Your task to perform on an android device: Open the map Image 0: 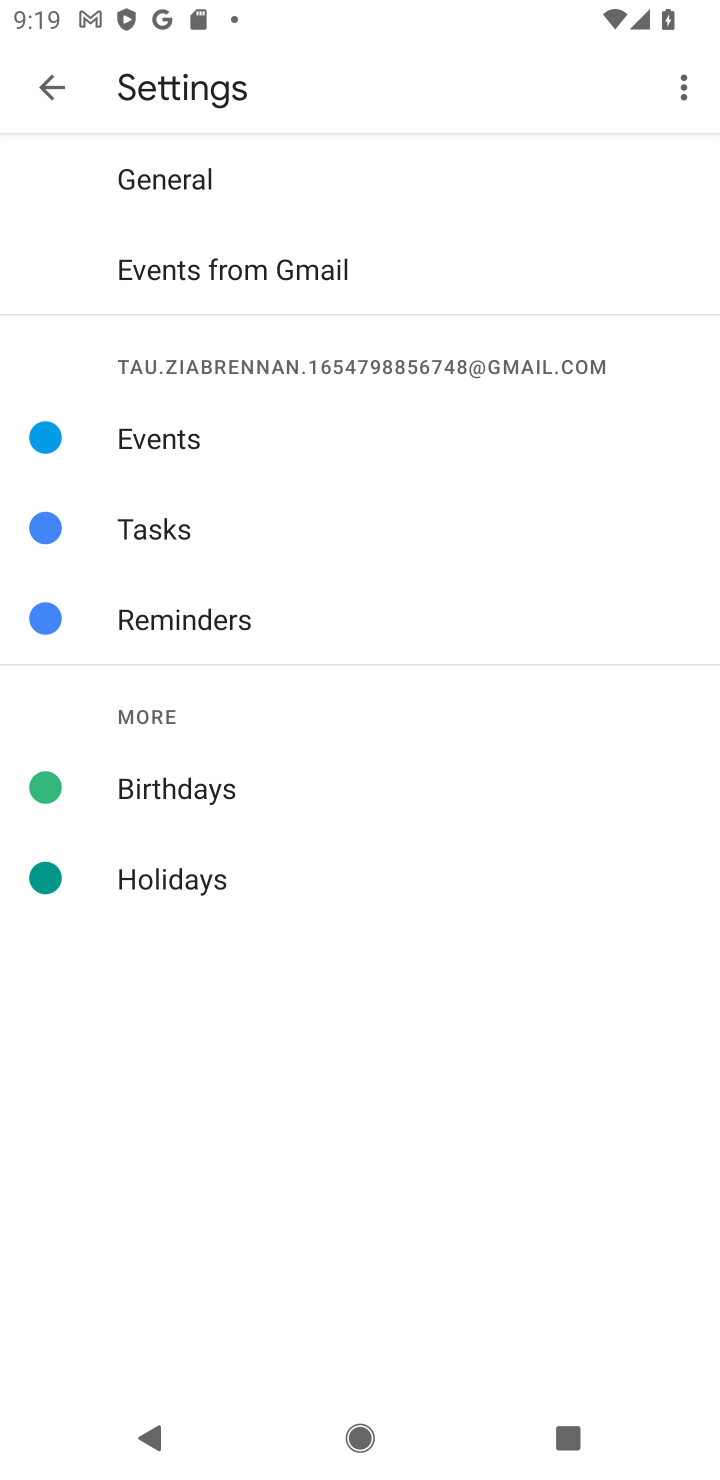
Step 0: press home button
Your task to perform on an android device: Open the map Image 1: 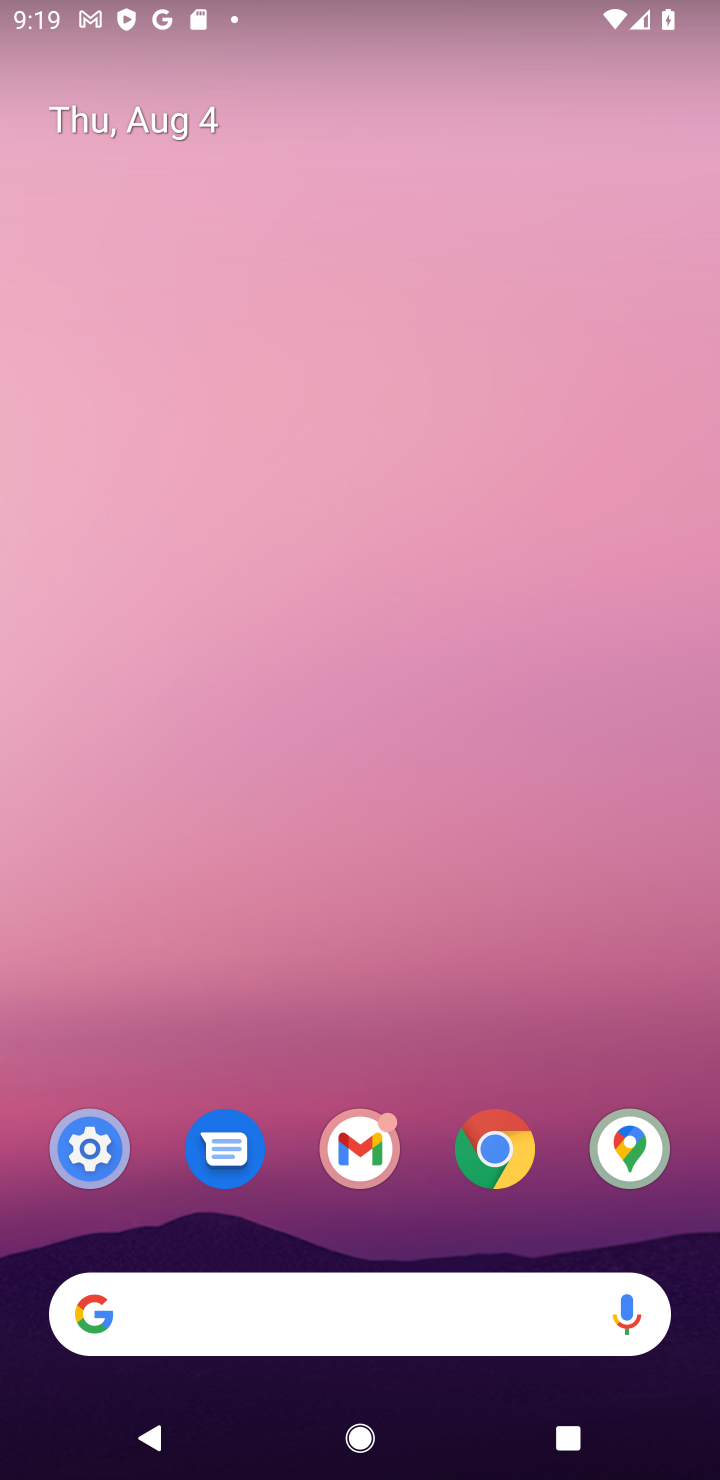
Step 1: click (622, 1150)
Your task to perform on an android device: Open the map Image 2: 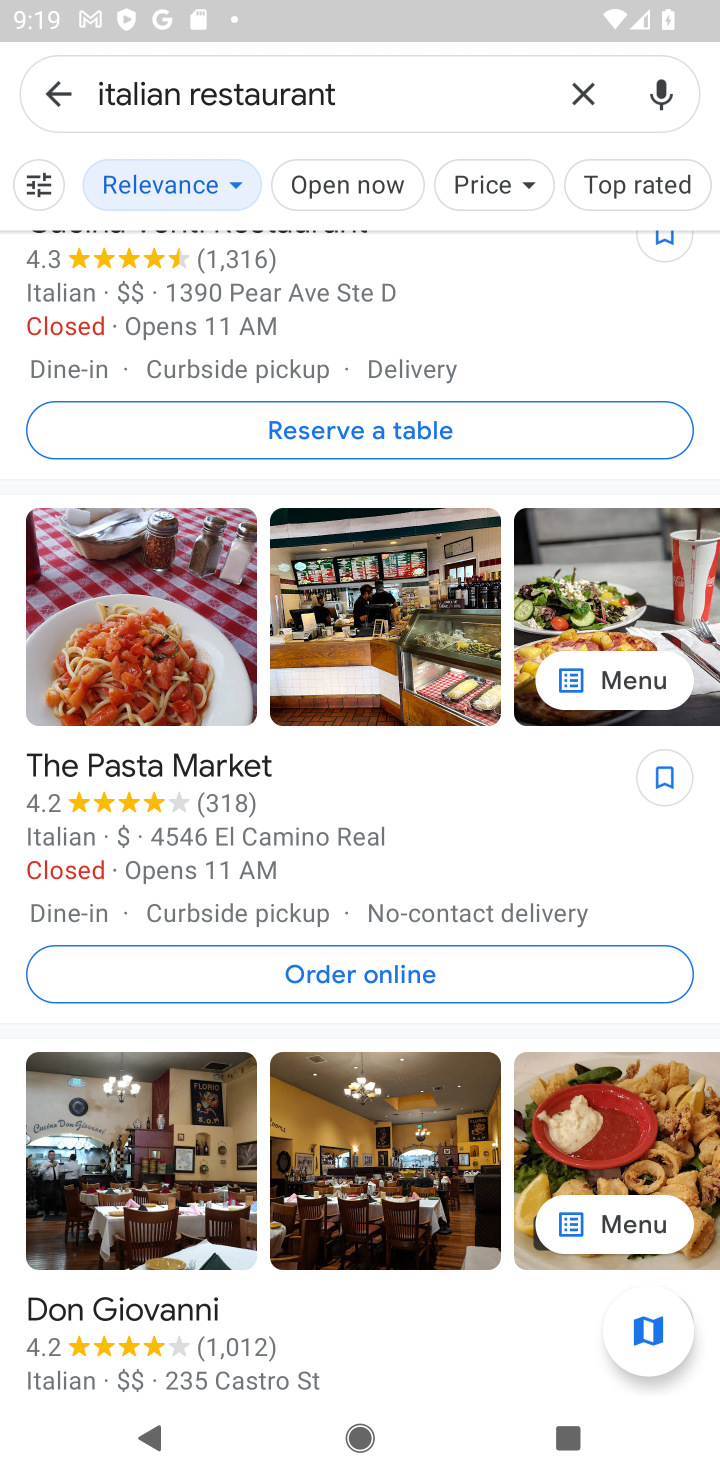
Step 2: click (571, 90)
Your task to perform on an android device: Open the map Image 3: 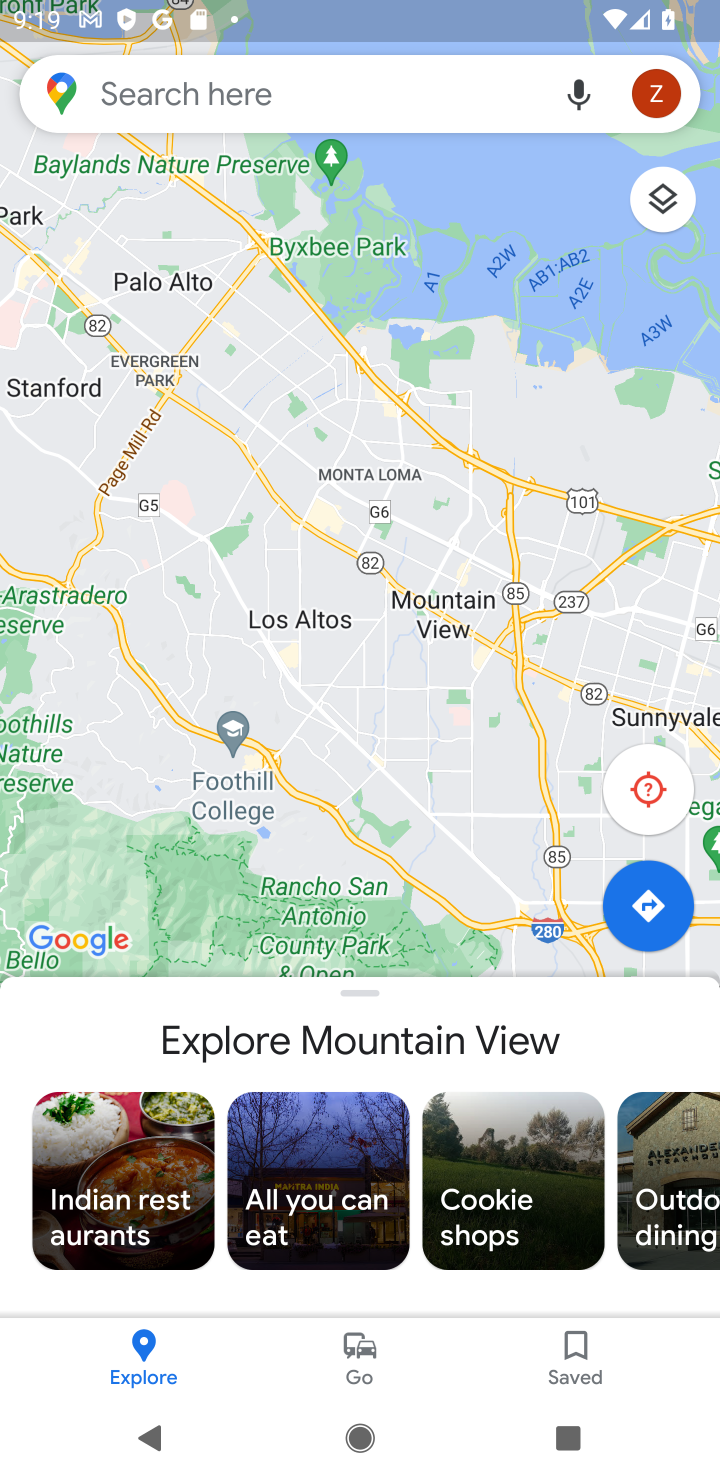
Step 3: task complete